Your task to perform on an android device: turn vacation reply on in the gmail app Image 0: 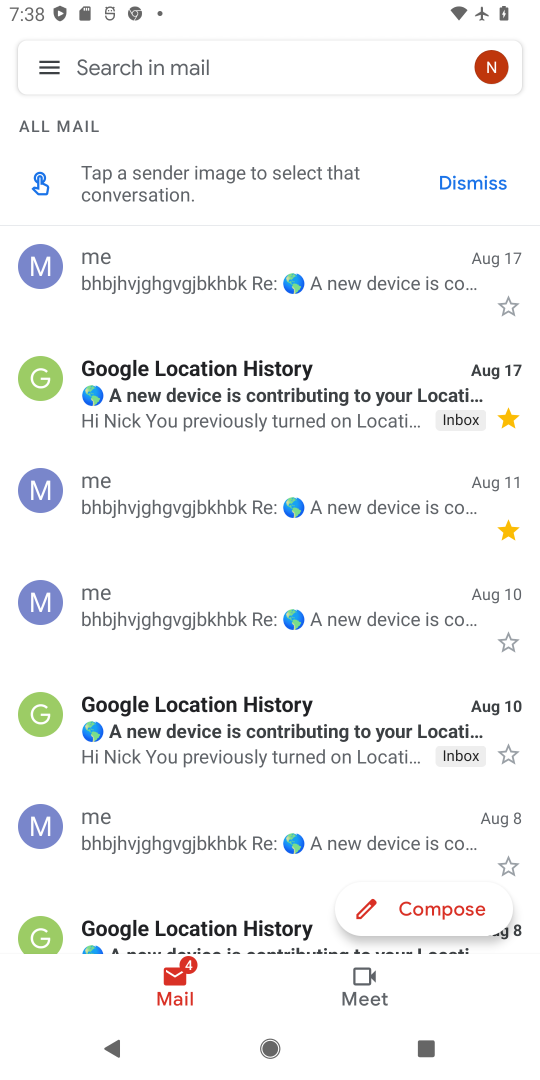
Step 0: click (42, 66)
Your task to perform on an android device: turn vacation reply on in the gmail app Image 1: 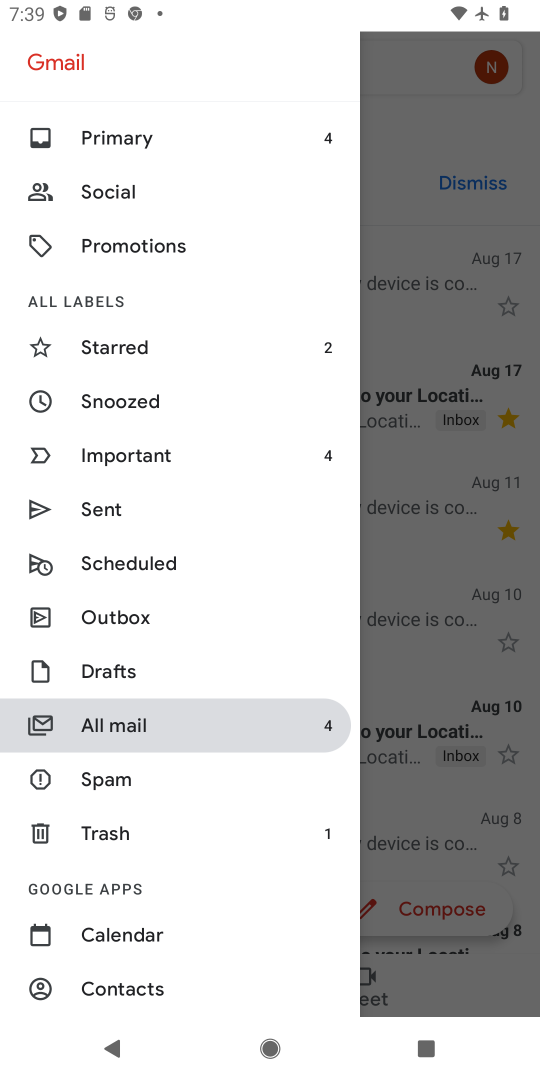
Step 1: drag from (106, 974) to (129, 334)
Your task to perform on an android device: turn vacation reply on in the gmail app Image 2: 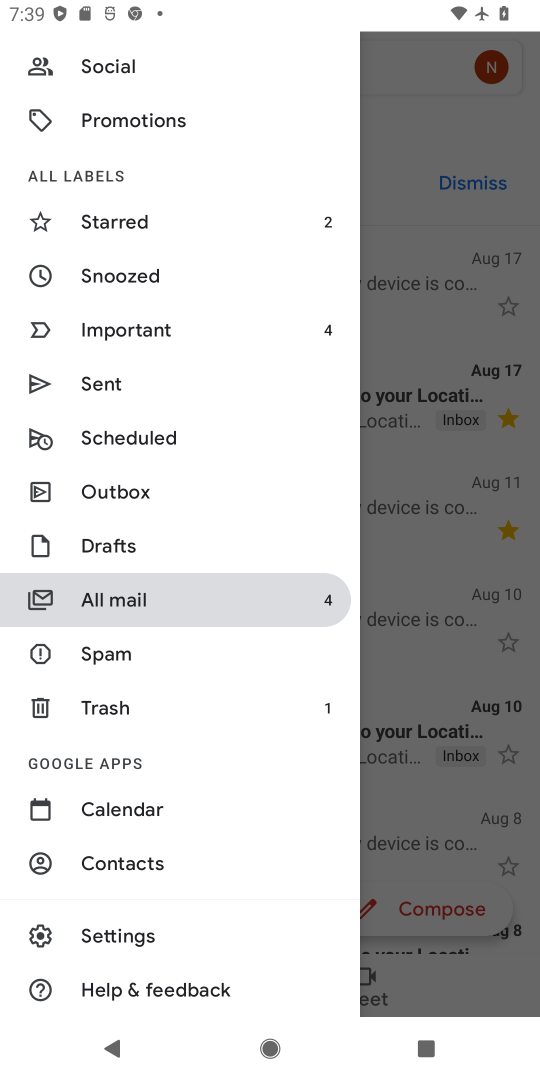
Step 2: click (113, 941)
Your task to perform on an android device: turn vacation reply on in the gmail app Image 3: 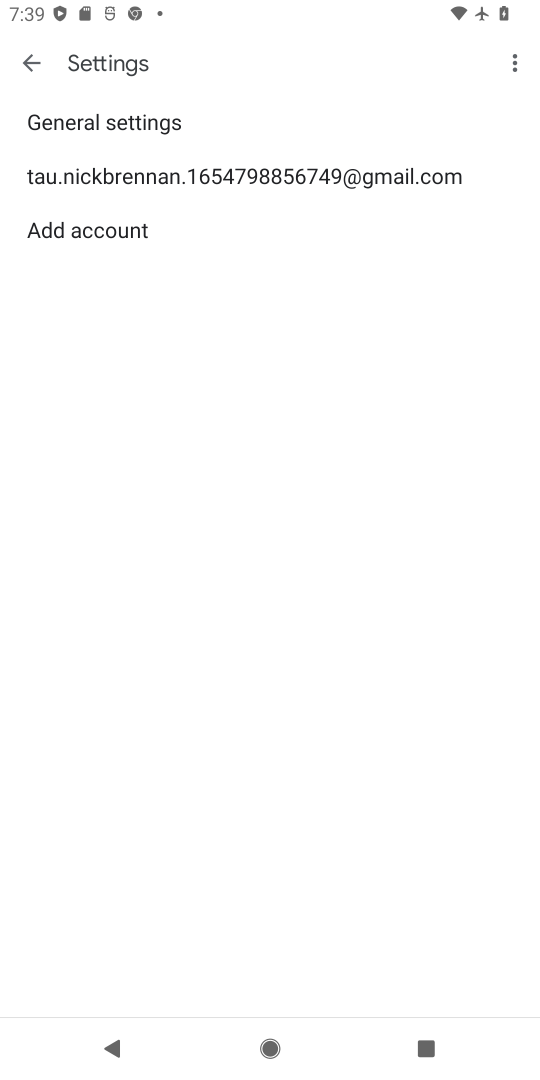
Step 3: click (275, 180)
Your task to perform on an android device: turn vacation reply on in the gmail app Image 4: 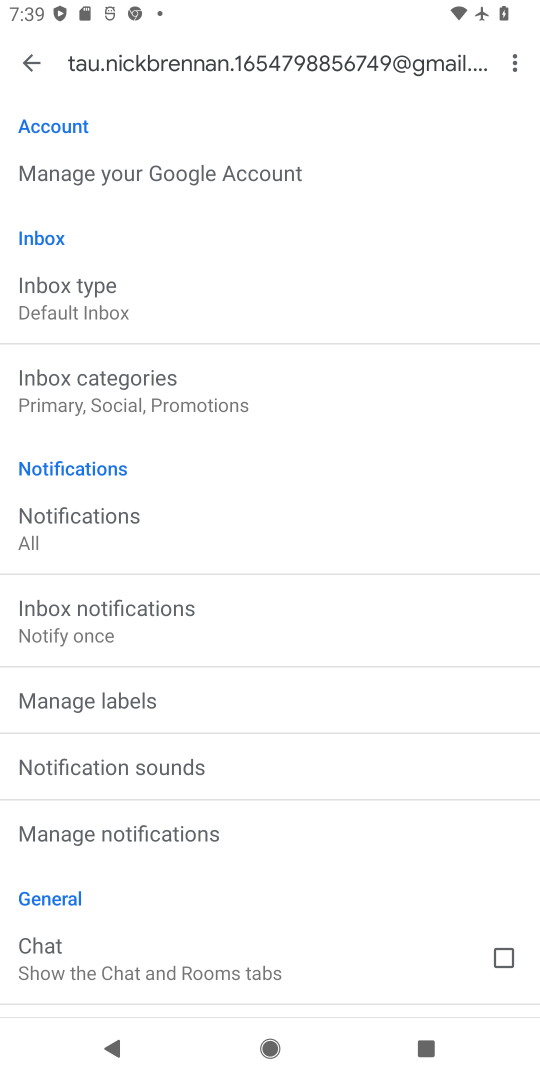
Step 4: drag from (207, 864) to (474, 66)
Your task to perform on an android device: turn vacation reply on in the gmail app Image 5: 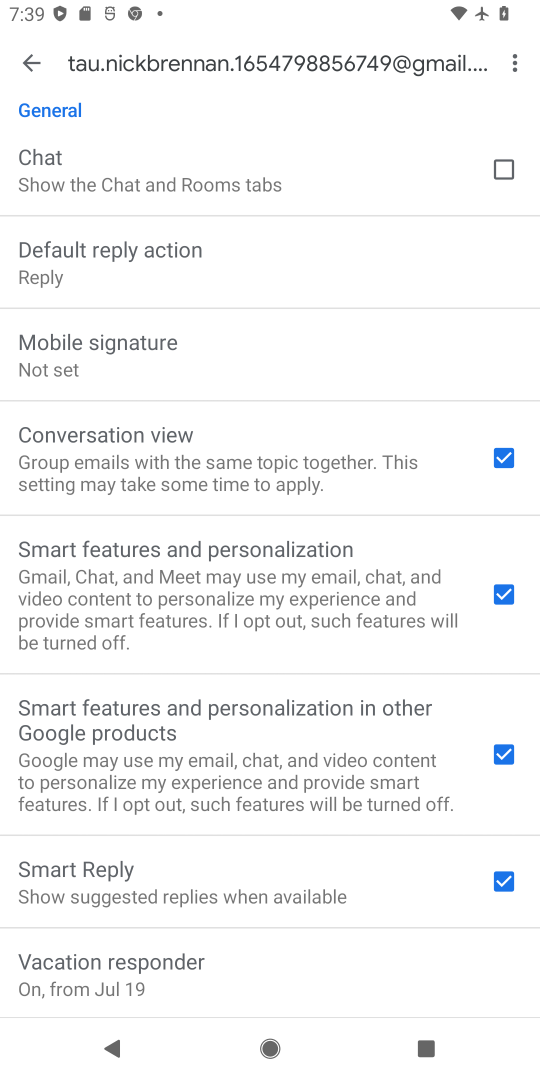
Step 5: drag from (245, 811) to (242, 147)
Your task to perform on an android device: turn vacation reply on in the gmail app Image 6: 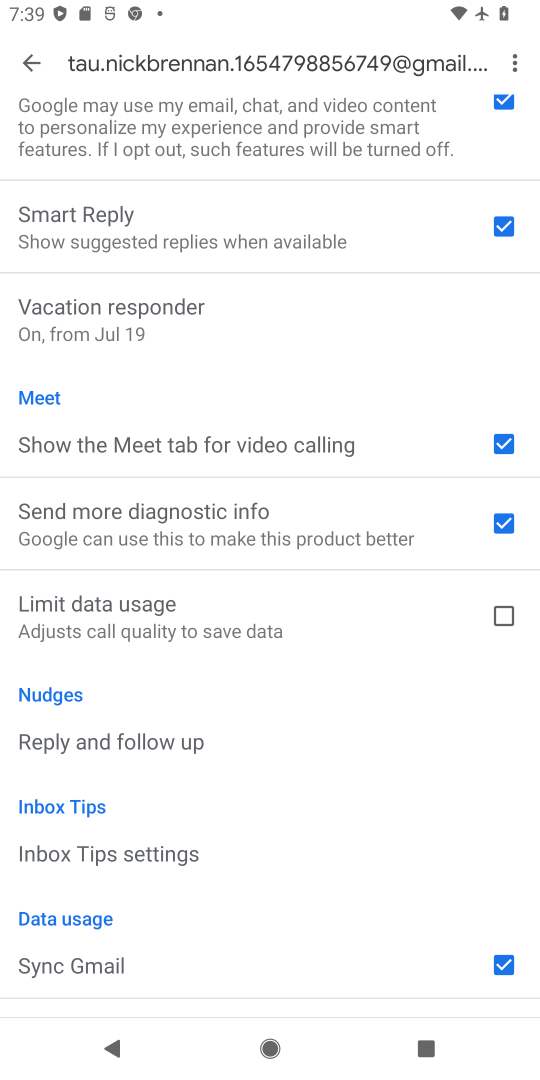
Step 6: click (169, 347)
Your task to perform on an android device: turn vacation reply on in the gmail app Image 7: 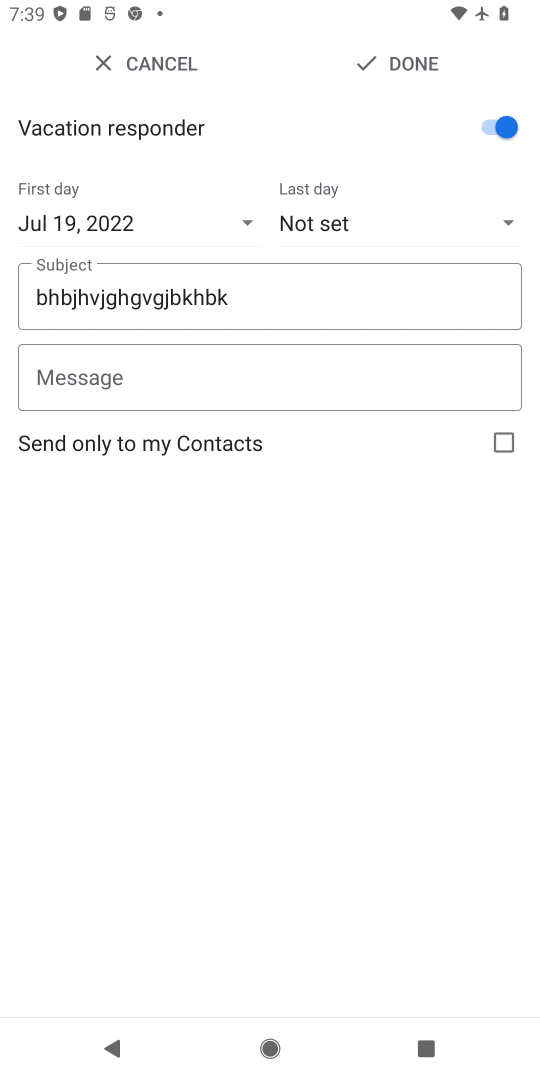
Step 7: task complete